Your task to perform on an android device: Go to Google Image 0: 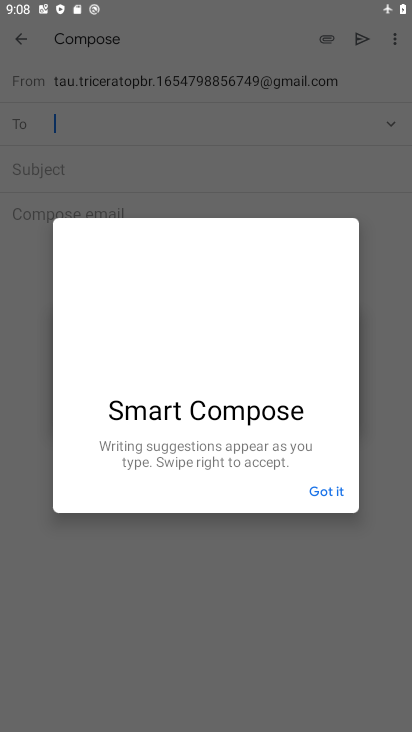
Step 0: press home button
Your task to perform on an android device: Go to Google Image 1: 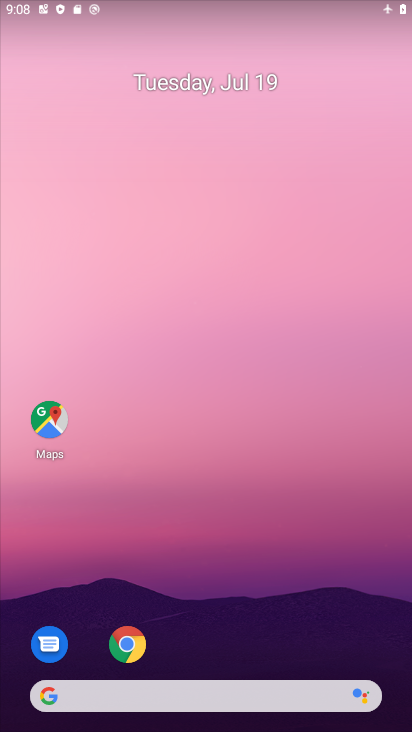
Step 1: click (201, 682)
Your task to perform on an android device: Go to Google Image 2: 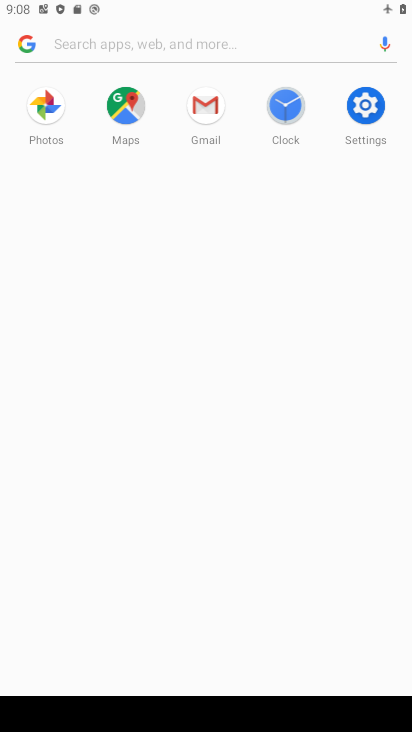
Step 2: task complete